Your task to perform on an android device: star an email in the gmail app Image 0: 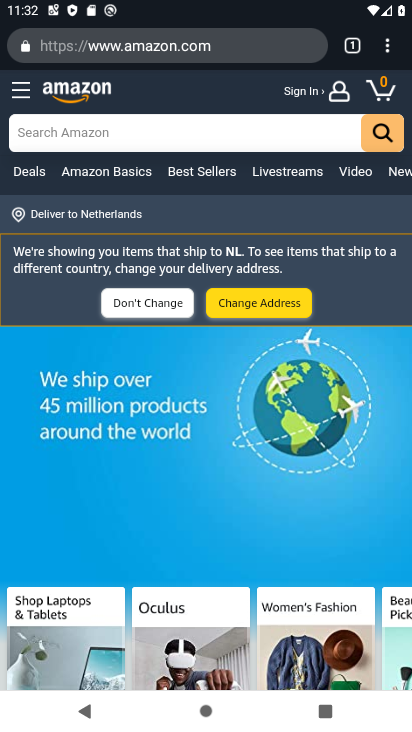
Step 0: press home button
Your task to perform on an android device: star an email in the gmail app Image 1: 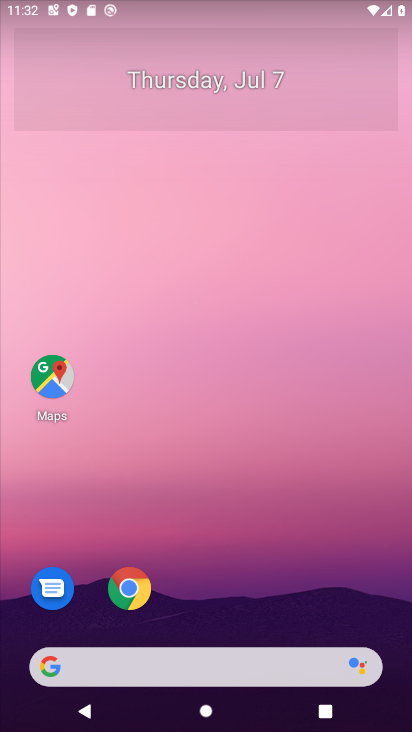
Step 1: drag from (217, 612) to (293, 97)
Your task to perform on an android device: star an email in the gmail app Image 2: 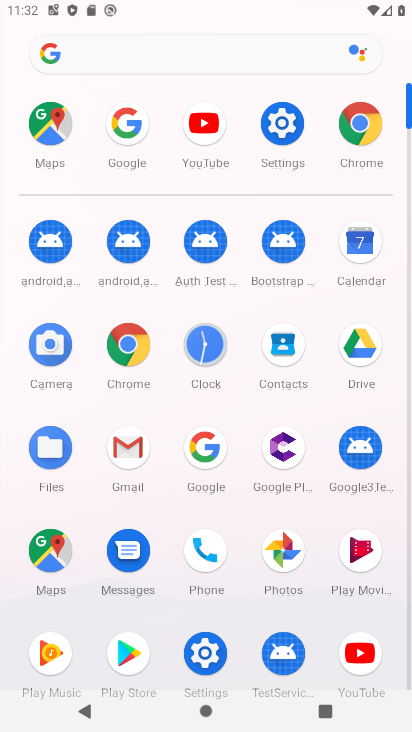
Step 2: click (130, 442)
Your task to perform on an android device: star an email in the gmail app Image 3: 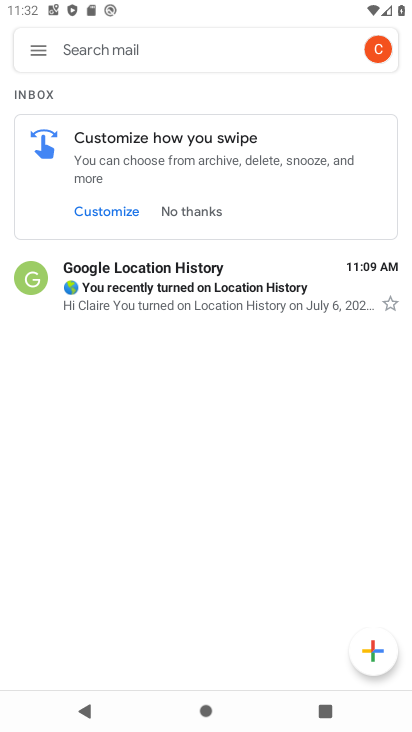
Step 3: drag from (193, 293) to (196, 384)
Your task to perform on an android device: star an email in the gmail app Image 4: 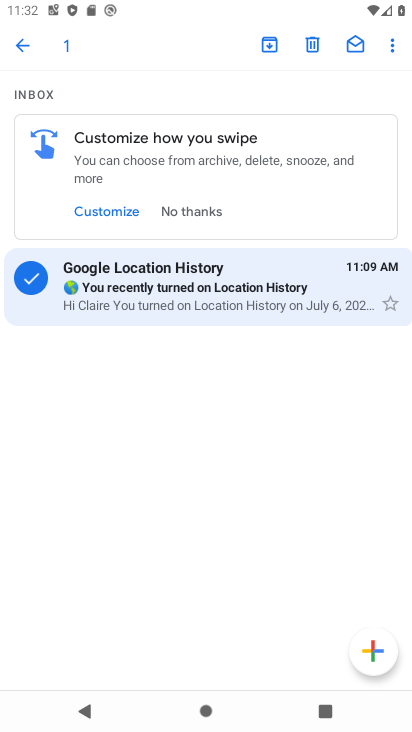
Step 4: click (389, 306)
Your task to perform on an android device: star an email in the gmail app Image 5: 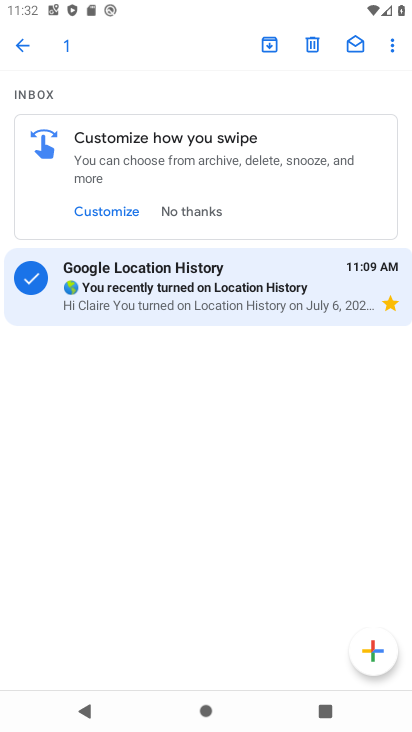
Step 5: task complete